Your task to perform on an android device: Open wifi settings Image 0: 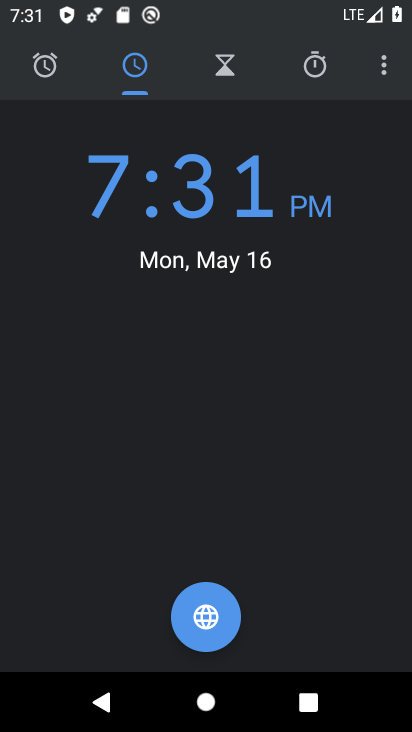
Step 0: press home button
Your task to perform on an android device: Open wifi settings Image 1: 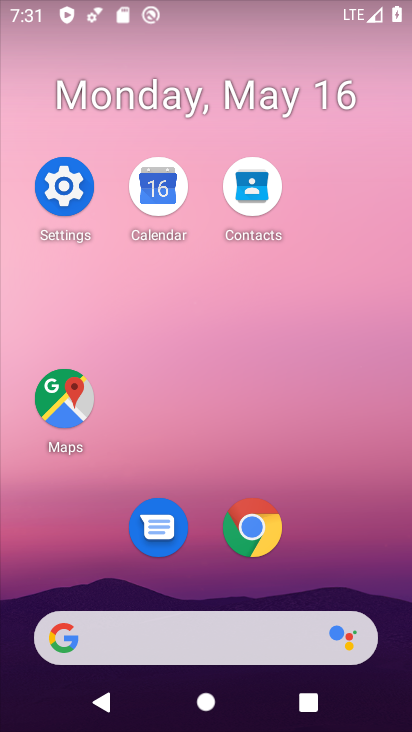
Step 1: click (80, 178)
Your task to perform on an android device: Open wifi settings Image 2: 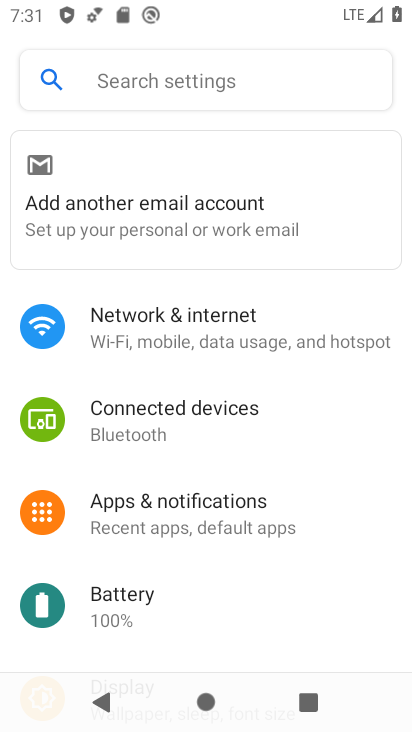
Step 2: click (224, 369)
Your task to perform on an android device: Open wifi settings Image 3: 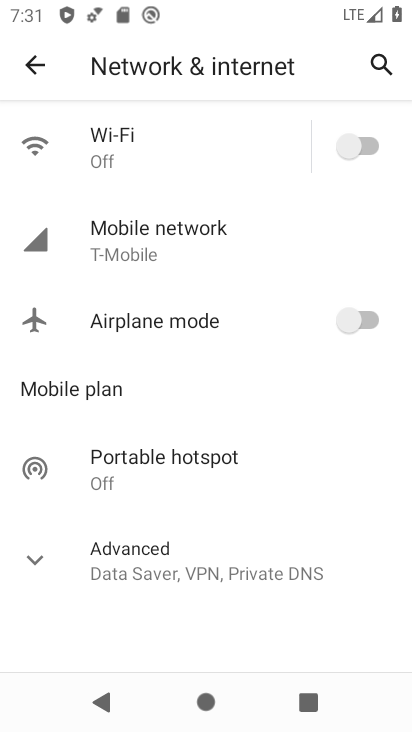
Step 3: click (134, 127)
Your task to perform on an android device: Open wifi settings Image 4: 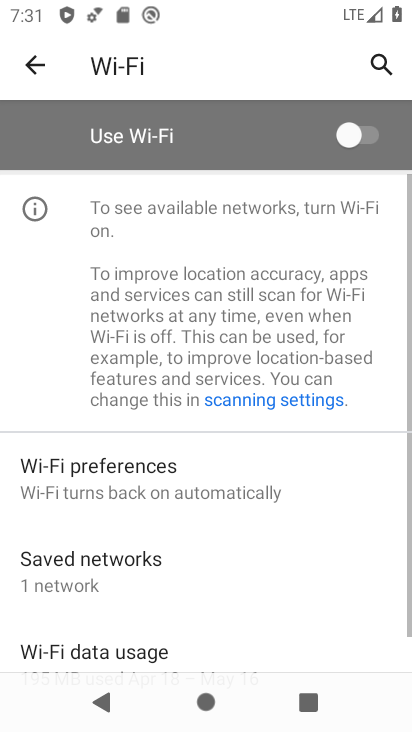
Step 4: click (348, 134)
Your task to perform on an android device: Open wifi settings Image 5: 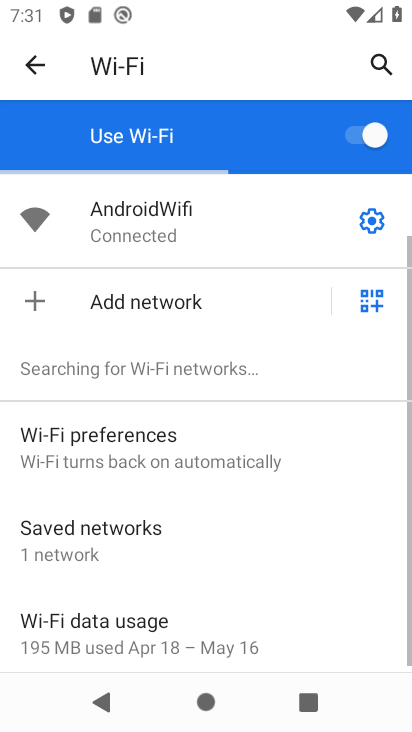
Step 5: click (366, 218)
Your task to perform on an android device: Open wifi settings Image 6: 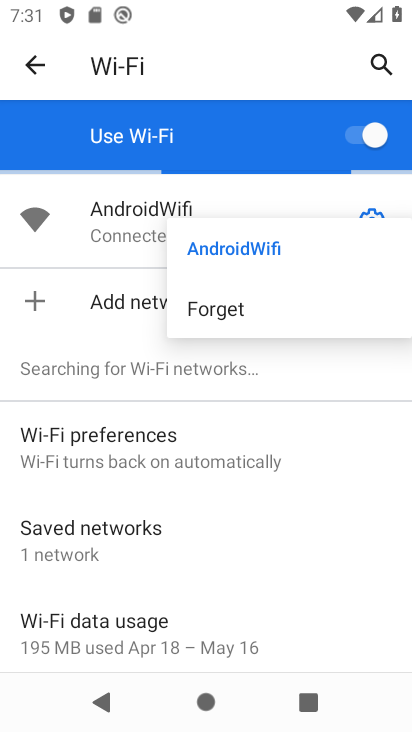
Step 6: click (367, 470)
Your task to perform on an android device: Open wifi settings Image 7: 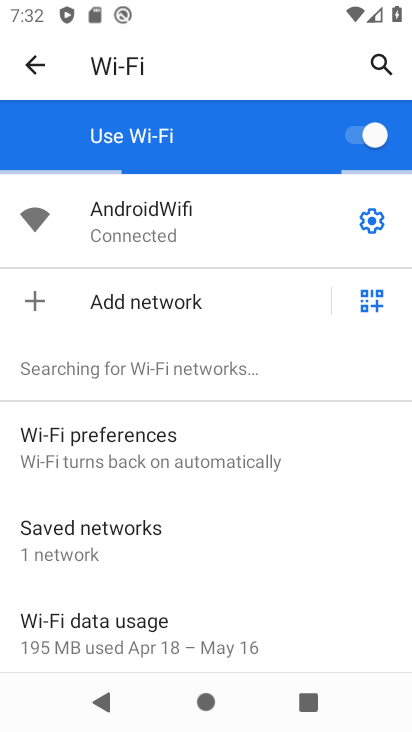
Step 7: click (371, 226)
Your task to perform on an android device: Open wifi settings Image 8: 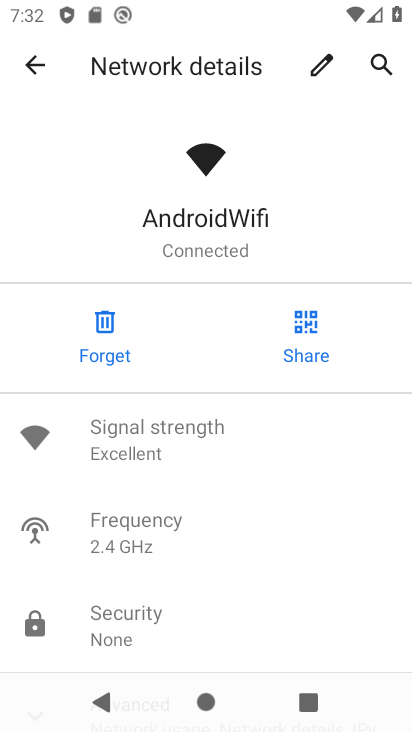
Step 8: task complete